Your task to perform on an android device: open app "TextNow: Call + Text Unlimited" Image 0: 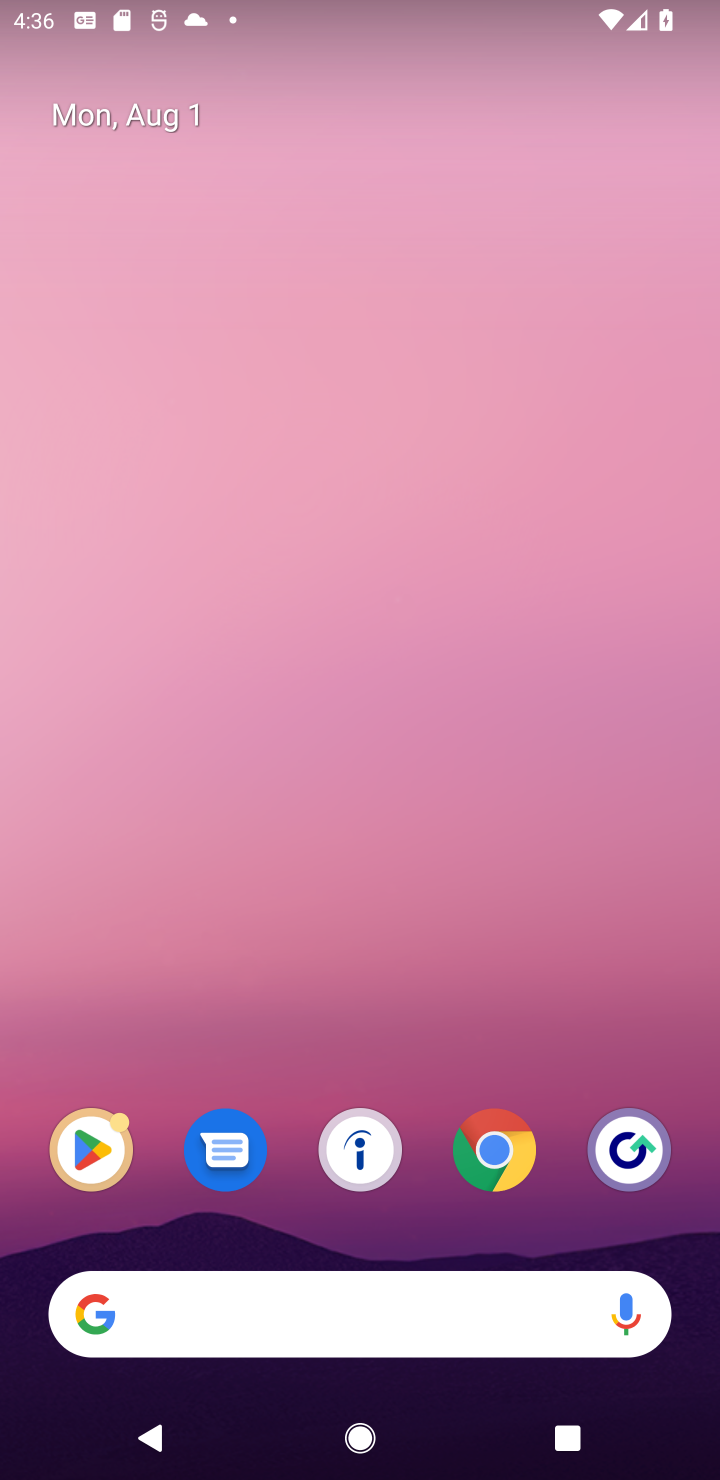
Step 0: click (69, 1183)
Your task to perform on an android device: open app "TextNow: Call + Text Unlimited" Image 1: 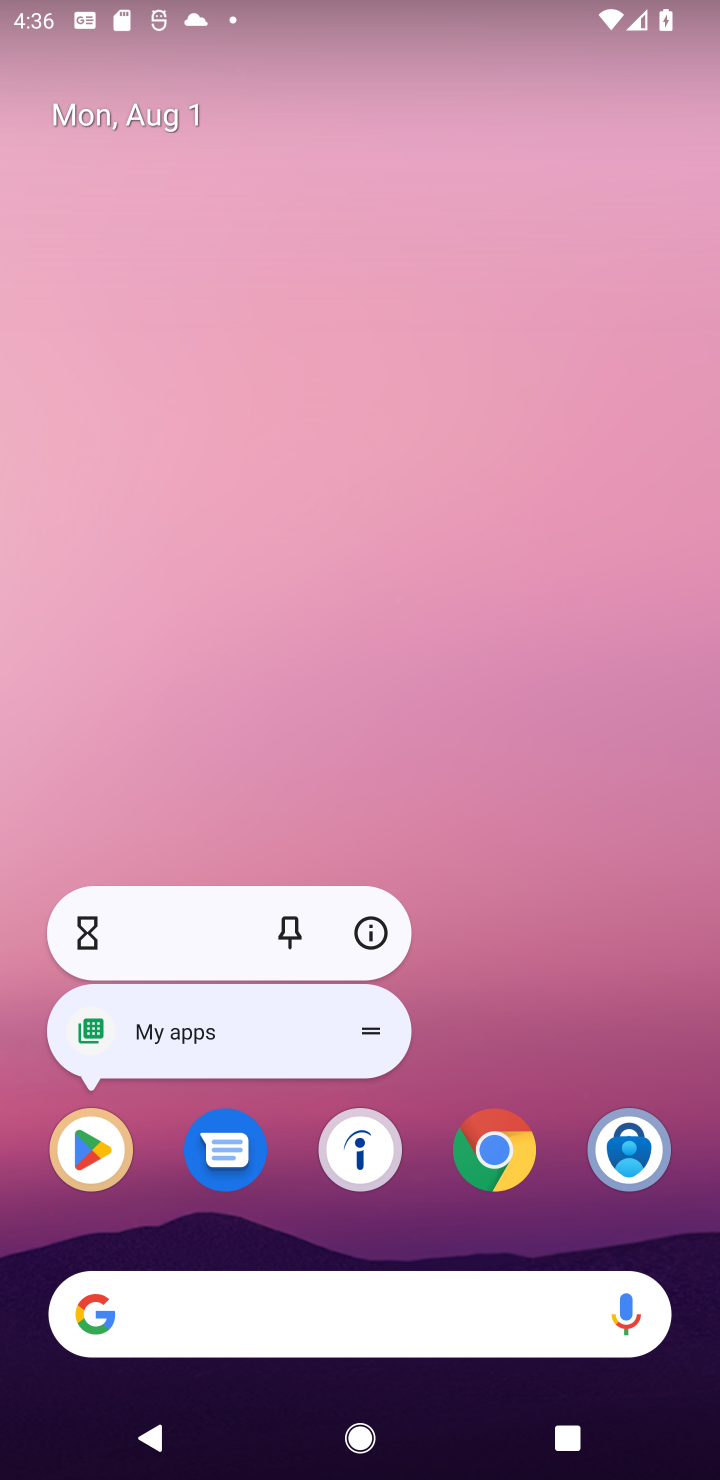
Step 1: click (284, 448)
Your task to perform on an android device: open app "TextNow: Call + Text Unlimited" Image 2: 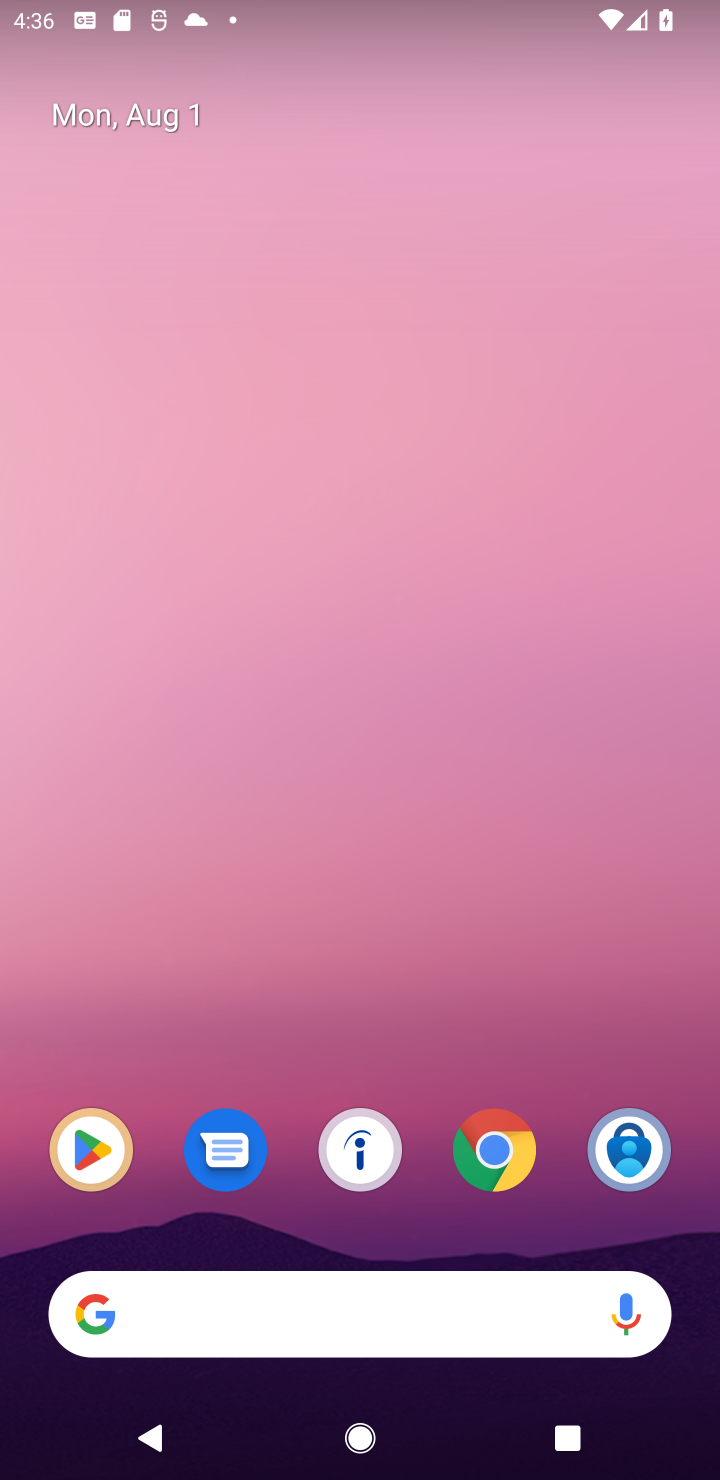
Step 2: click (86, 1156)
Your task to perform on an android device: open app "TextNow: Call + Text Unlimited" Image 3: 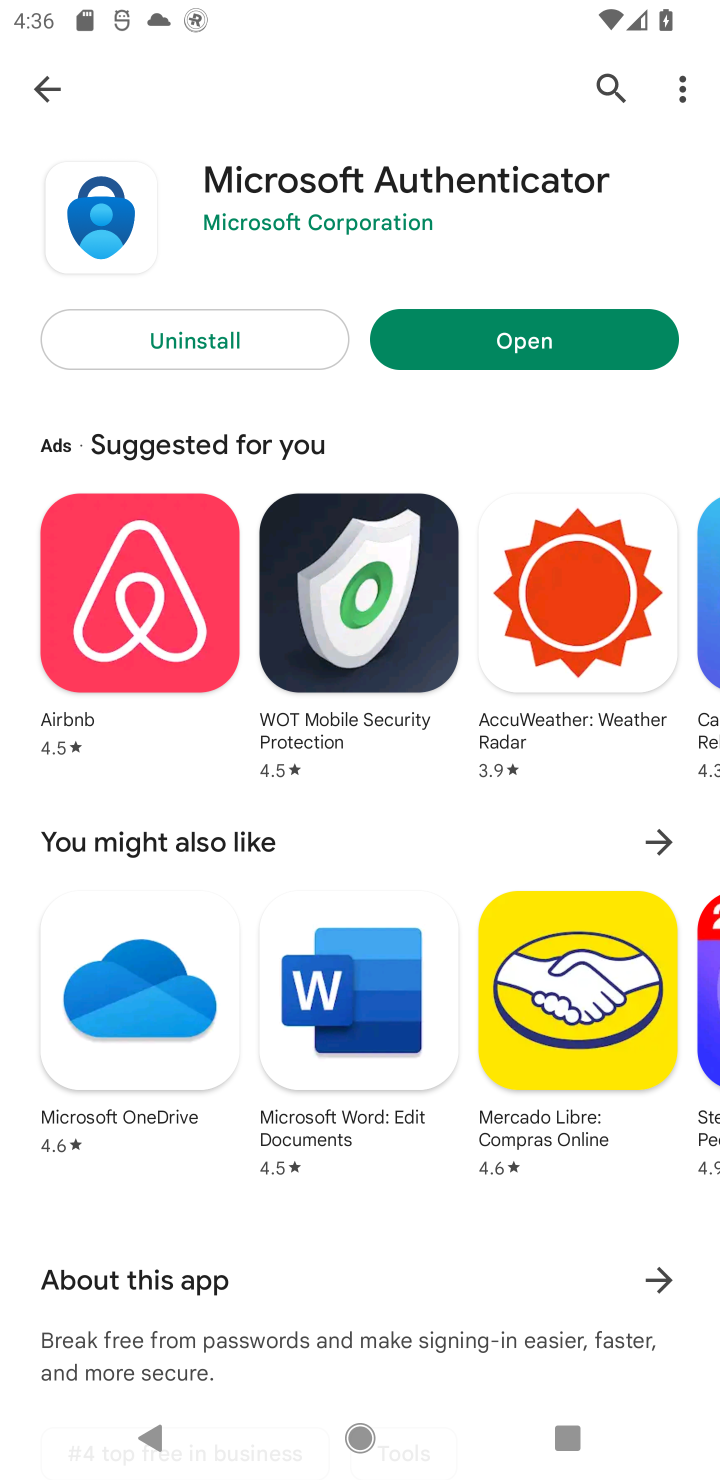
Step 3: click (594, 96)
Your task to perform on an android device: open app "TextNow: Call + Text Unlimited" Image 4: 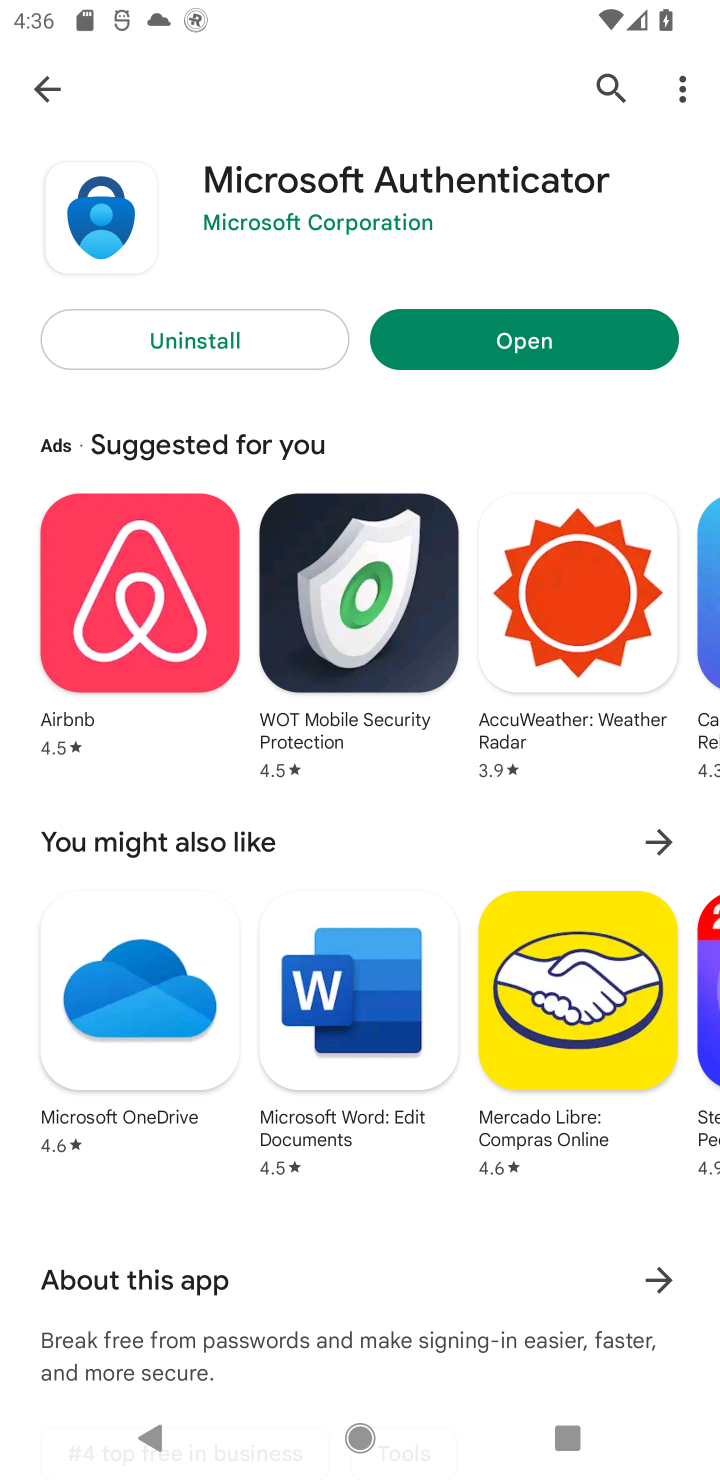
Step 4: click (617, 96)
Your task to perform on an android device: open app "TextNow: Call + Text Unlimited" Image 5: 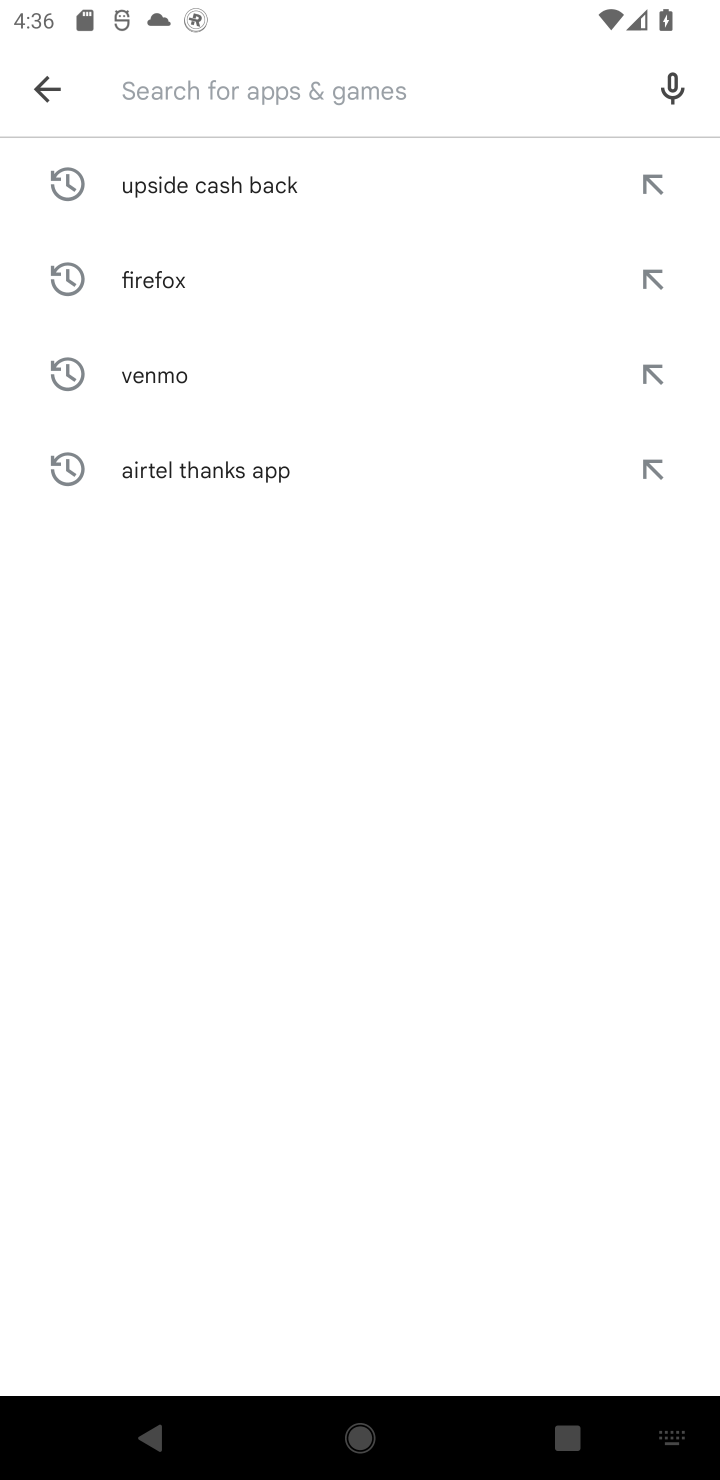
Step 5: type "textnow"
Your task to perform on an android device: open app "TextNow: Call + Text Unlimited" Image 6: 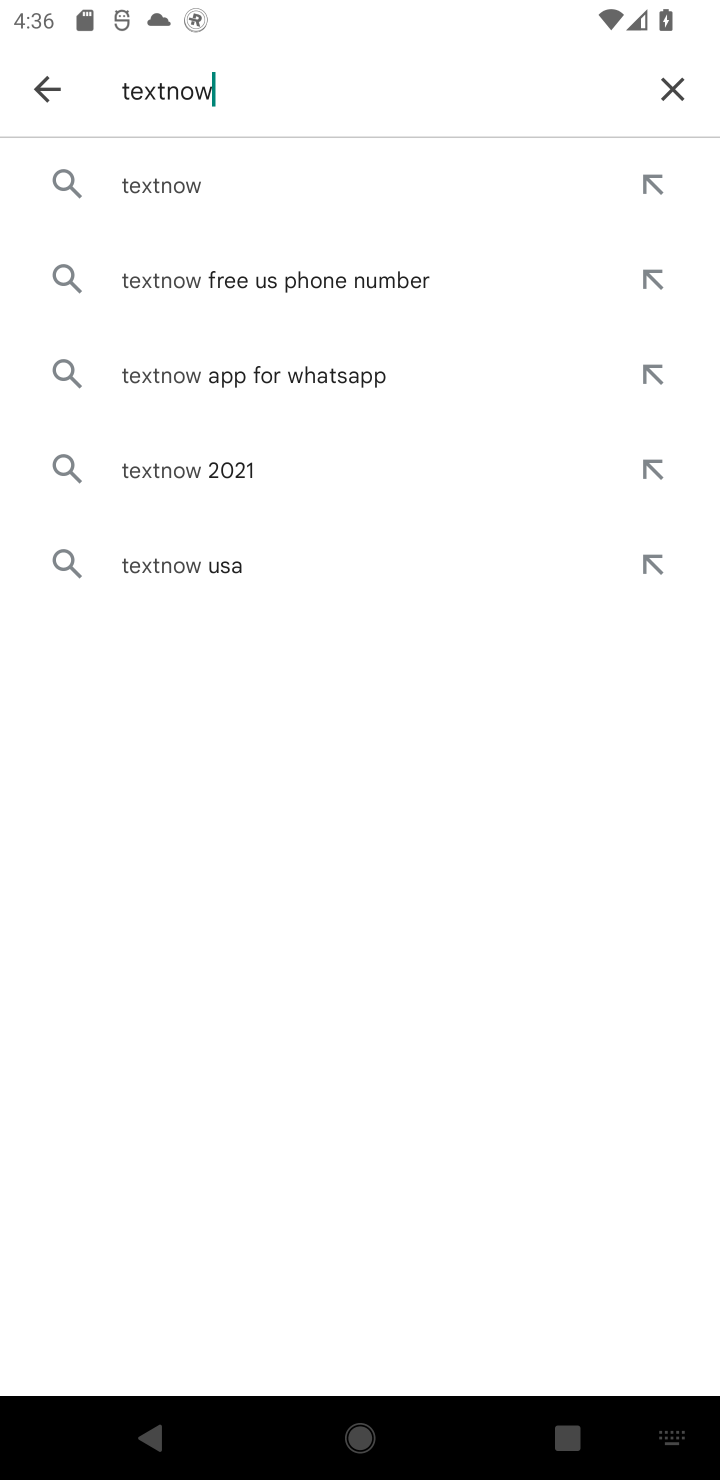
Step 6: click (312, 182)
Your task to perform on an android device: open app "TextNow: Call + Text Unlimited" Image 7: 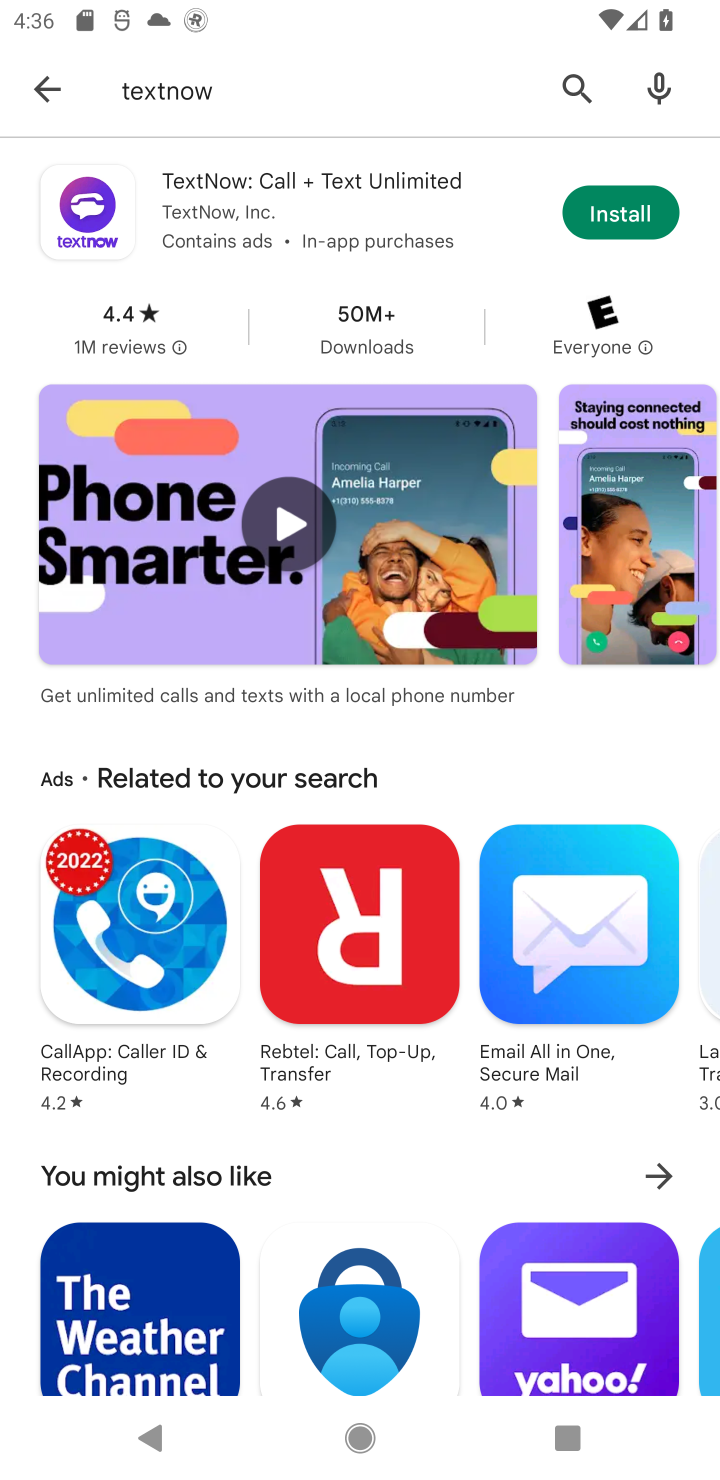
Step 7: click (622, 213)
Your task to perform on an android device: open app "TextNow: Call + Text Unlimited" Image 8: 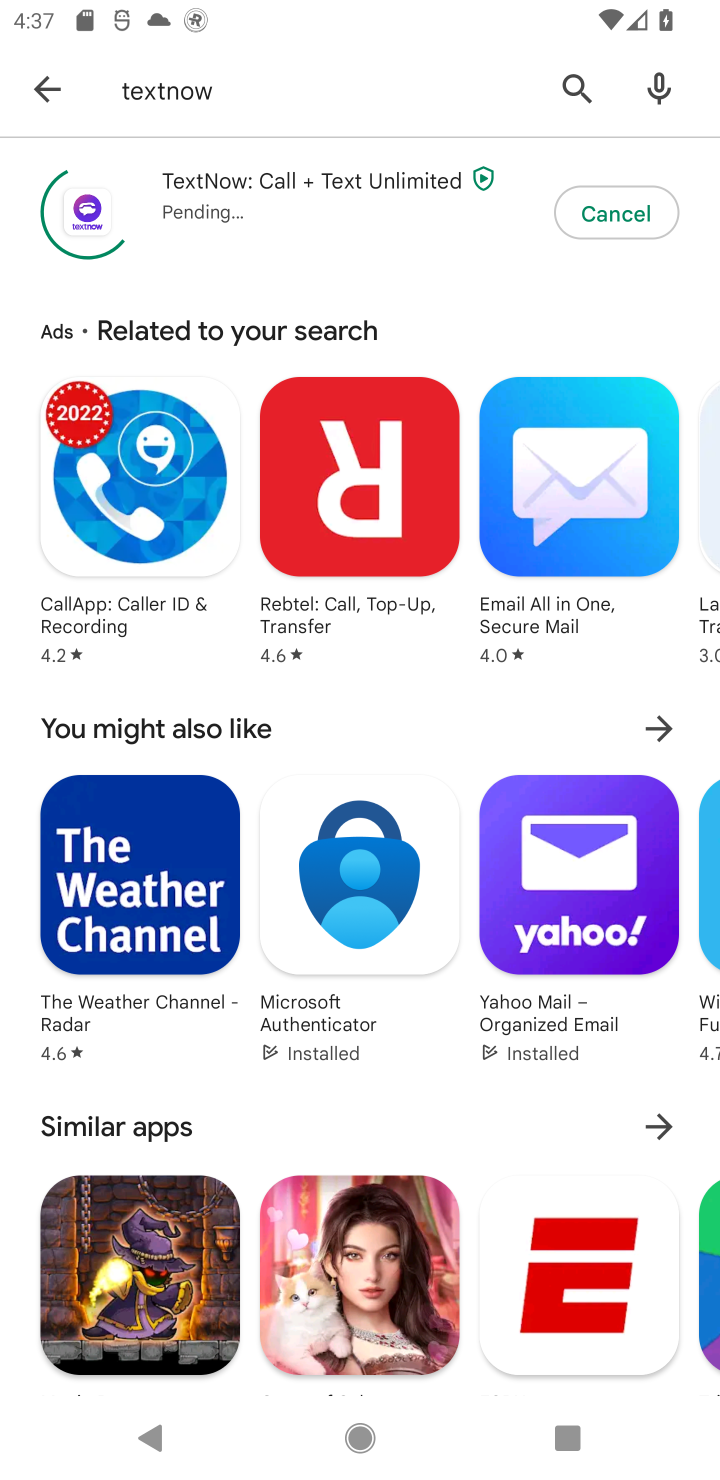
Step 8: task complete